Your task to perform on an android device: all mails in gmail Image 0: 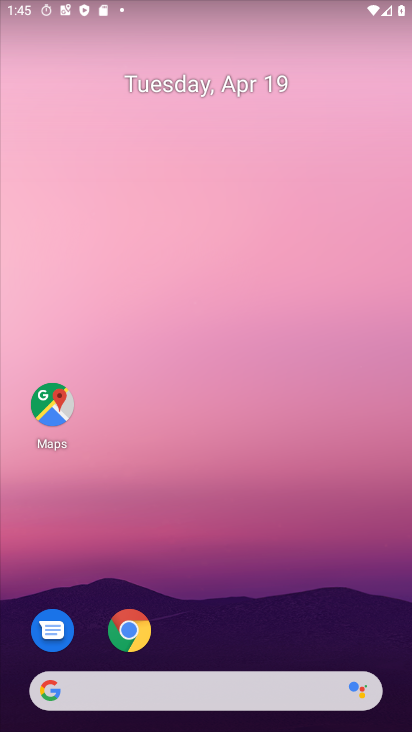
Step 0: press home button
Your task to perform on an android device: all mails in gmail Image 1: 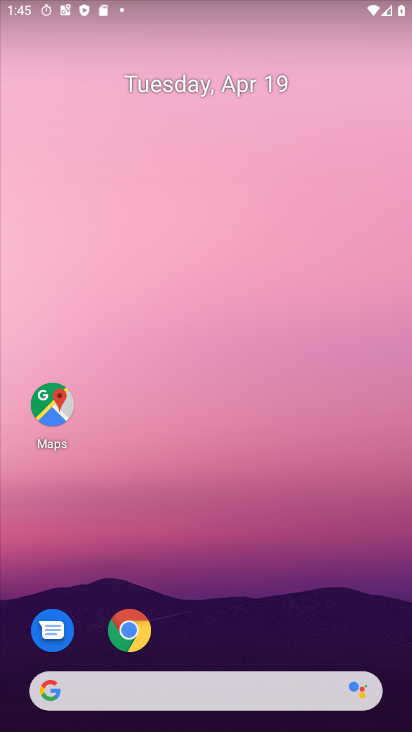
Step 1: drag from (216, 584) to (257, 73)
Your task to perform on an android device: all mails in gmail Image 2: 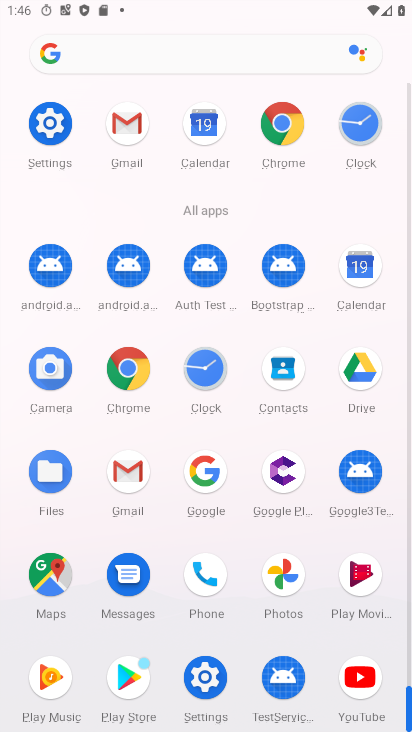
Step 2: click (132, 116)
Your task to perform on an android device: all mails in gmail Image 3: 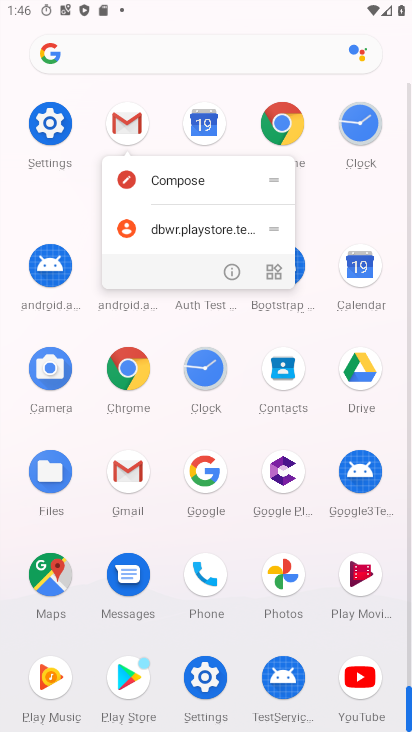
Step 3: click (128, 130)
Your task to perform on an android device: all mails in gmail Image 4: 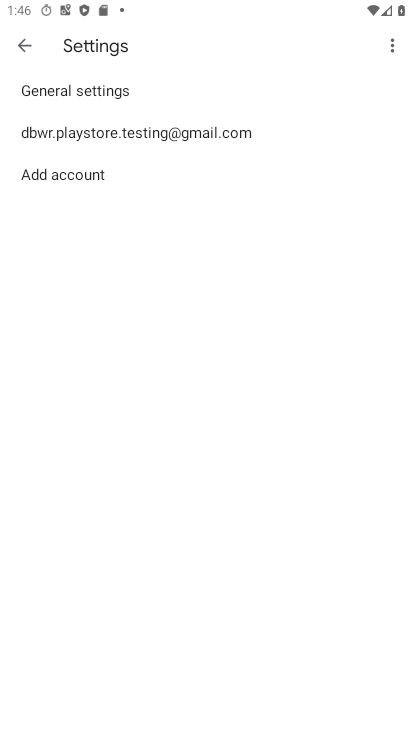
Step 4: click (123, 117)
Your task to perform on an android device: all mails in gmail Image 5: 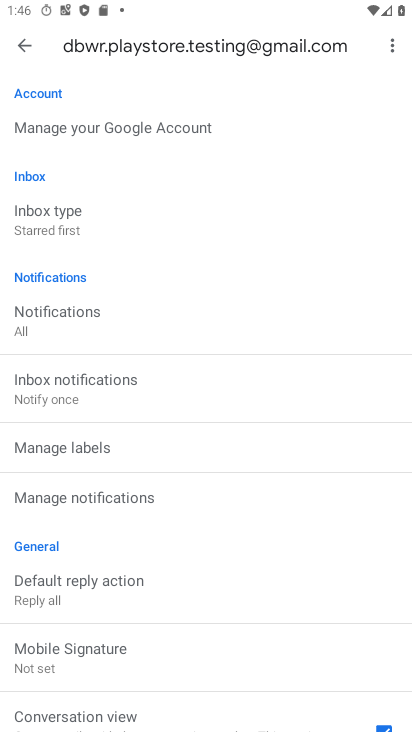
Step 5: click (20, 46)
Your task to perform on an android device: all mails in gmail Image 6: 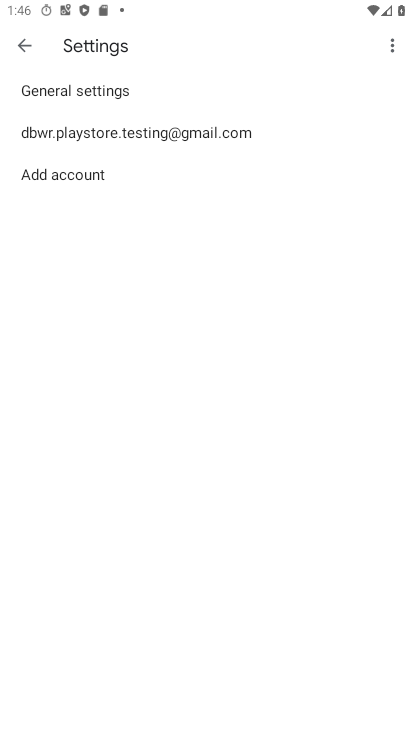
Step 6: click (20, 46)
Your task to perform on an android device: all mails in gmail Image 7: 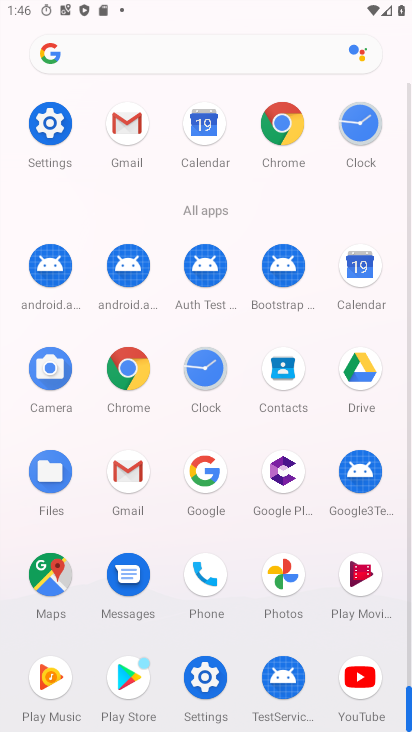
Step 7: click (20, 41)
Your task to perform on an android device: all mails in gmail Image 8: 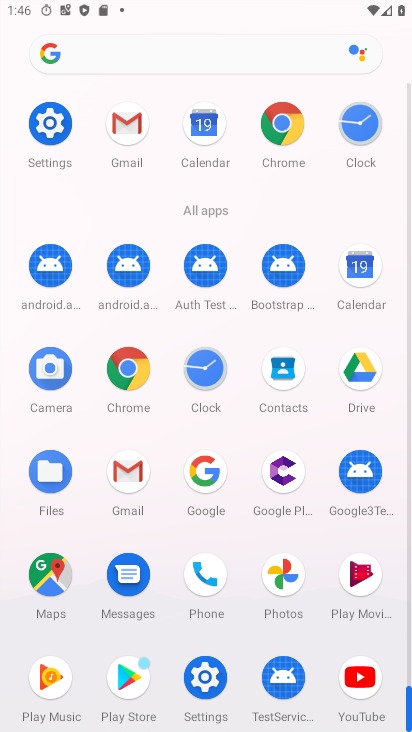
Step 8: click (20, 41)
Your task to perform on an android device: all mails in gmail Image 9: 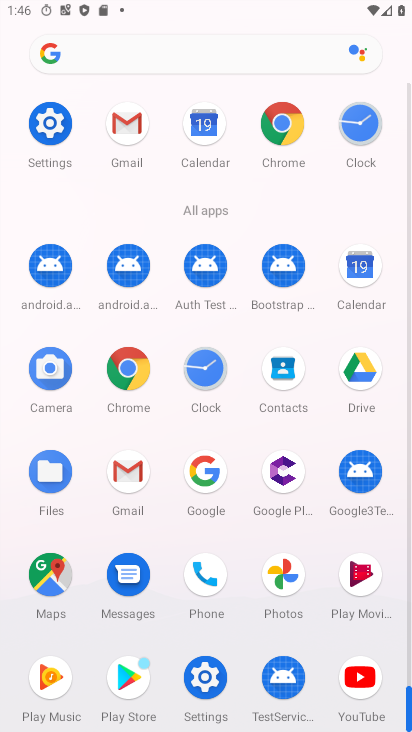
Step 9: click (19, 38)
Your task to perform on an android device: all mails in gmail Image 10: 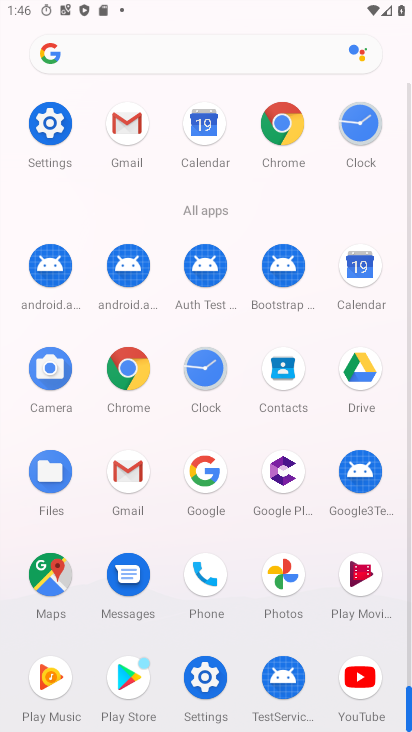
Step 10: click (19, 38)
Your task to perform on an android device: all mails in gmail Image 11: 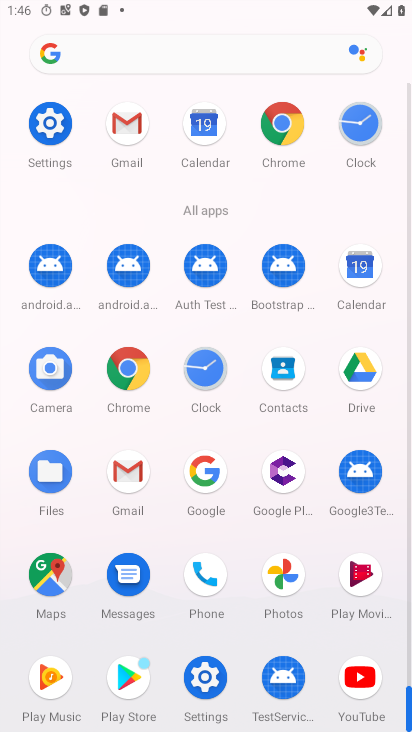
Step 11: click (132, 141)
Your task to perform on an android device: all mails in gmail Image 12: 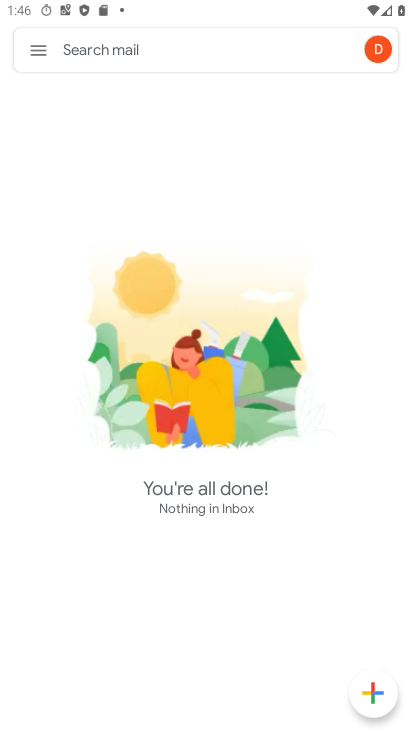
Step 12: click (41, 46)
Your task to perform on an android device: all mails in gmail Image 13: 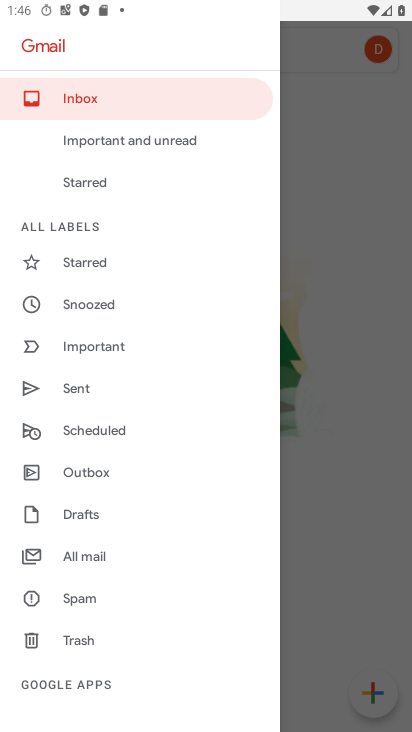
Step 13: drag from (159, 561) to (156, 259)
Your task to perform on an android device: all mails in gmail Image 14: 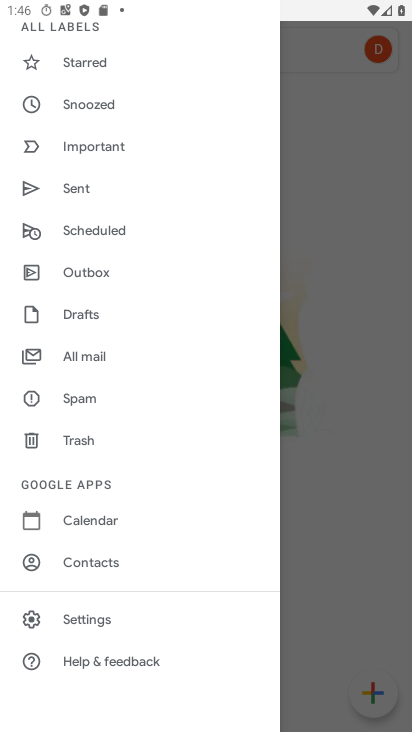
Step 14: drag from (124, 611) to (171, 208)
Your task to perform on an android device: all mails in gmail Image 15: 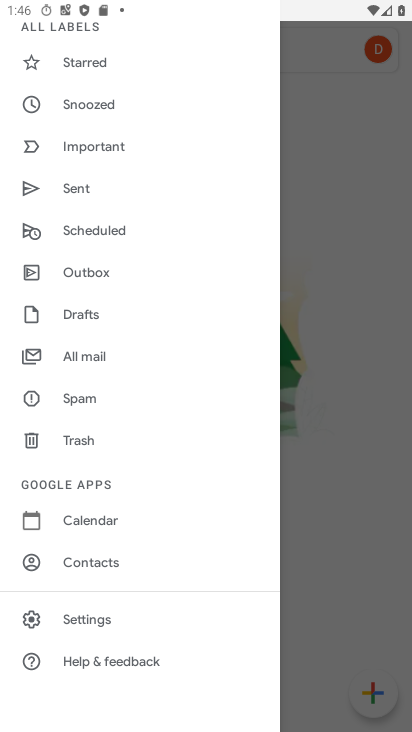
Step 15: click (82, 357)
Your task to perform on an android device: all mails in gmail Image 16: 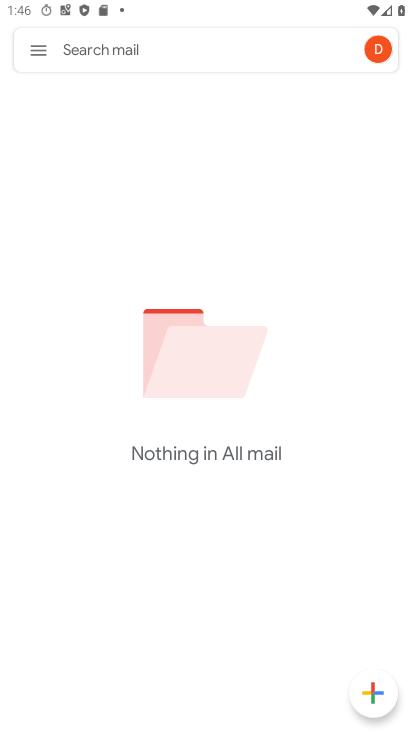
Step 16: task complete